Your task to perform on an android device: Go to calendar. Show me events next week Image 0: 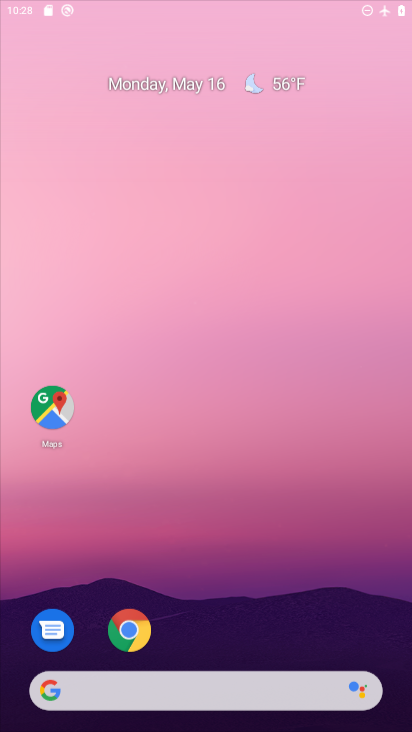
Step 0: click (319, 234)
Your task to perform on an android device: Go to calendar. Show me events next week Image 1: 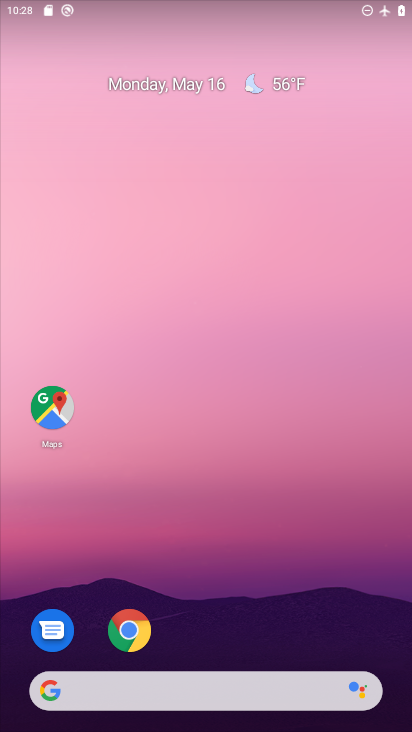
Step 1: drag from (213, 633) to (276, 1)
Your task to perform on an android device: Go to calendar. Show me events next week Image 2: 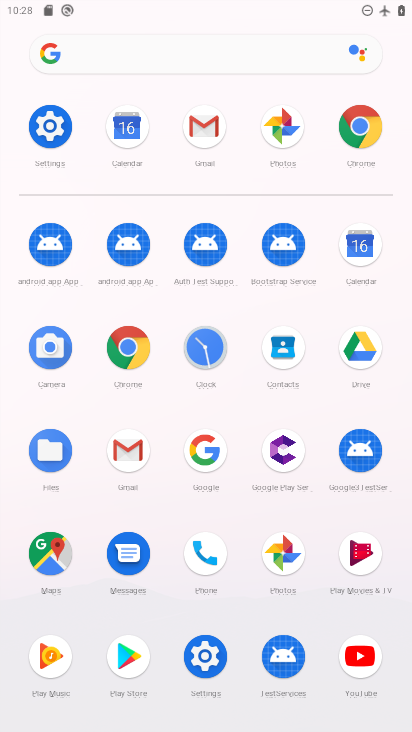
Step 2: click (359, 262)
Your task to perform on an android device: Go to calendar. Show me events next week Image 3: 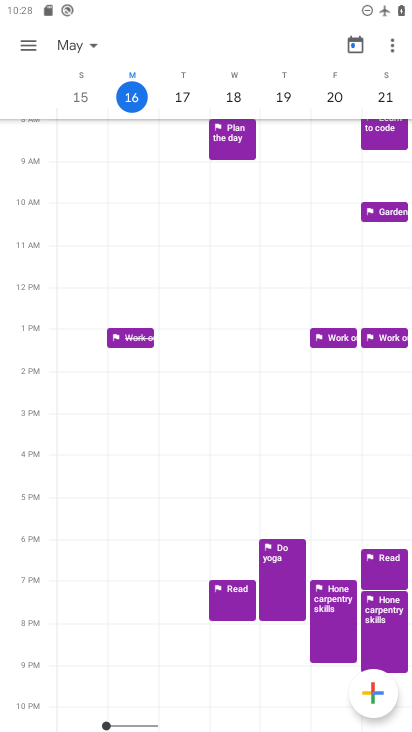
Step 3: task complete